Your task to perform on an android device: remove spam from my inbox in the gmail app Image 0: 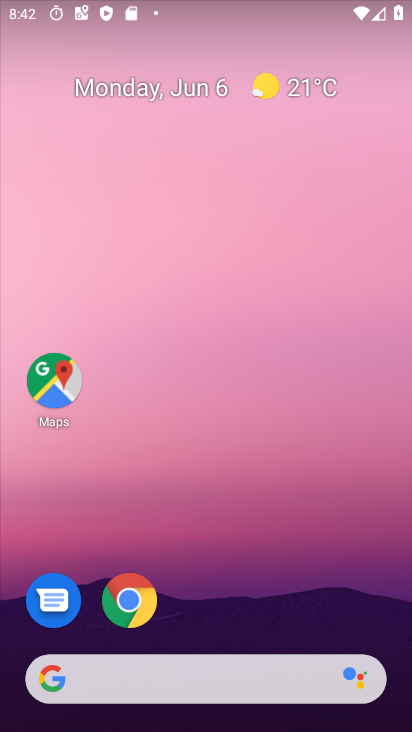
Step 0: drag from (305, 597) to (235, 10)
Your task to perform on an android device: remove spam from my inbox in the gmail app Image 1: 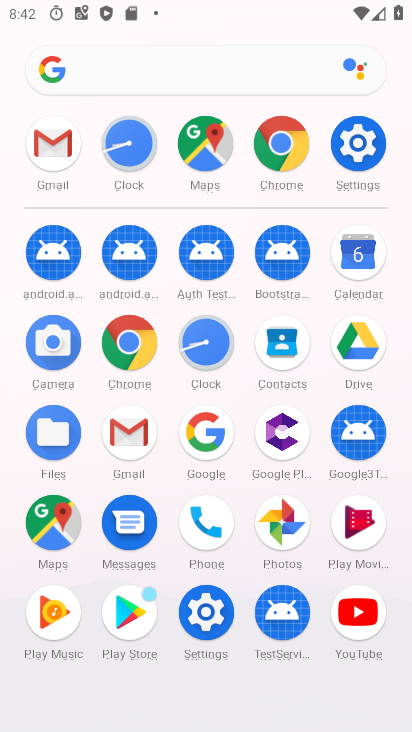
Step 1: drag from (15, 557) to (12, 242)
Your task to perform on an android device: remove spam from my inbox in the gmail app Image 2: 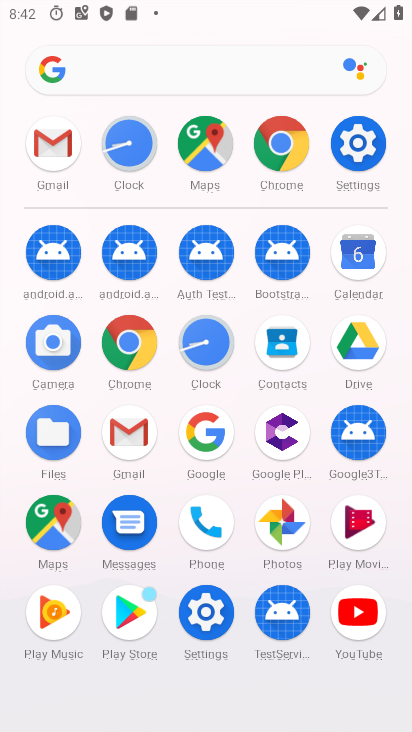
Step 2: click (131, 424)
Your task to perform on an android device: remove spam from my inbox in the gmail app Image 3: 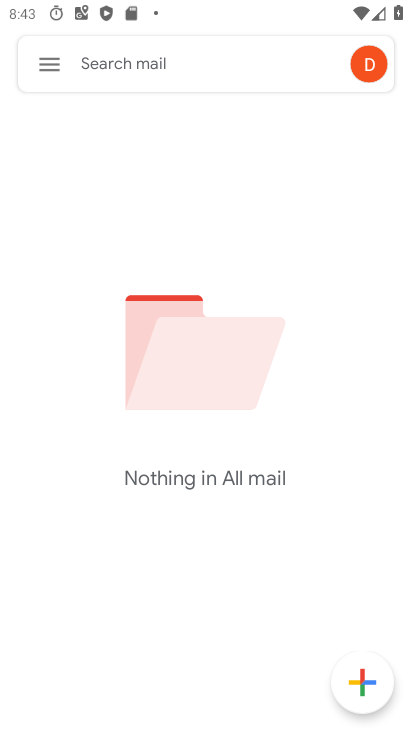
Step 3: click (57, 65)
Your task to perform on an android device: remove spam from my inbox in the gmail app Image 4: 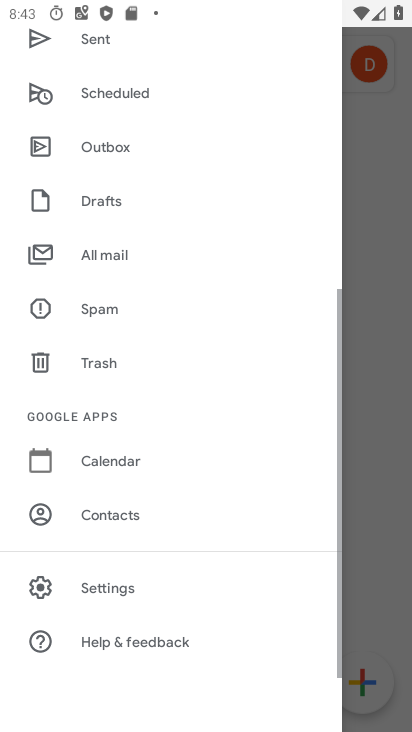
Step 4: drag from (196, 542) to (220, 124)
Your task to perform on an android device: remove spam from my inbox in the gmail app Image 5: 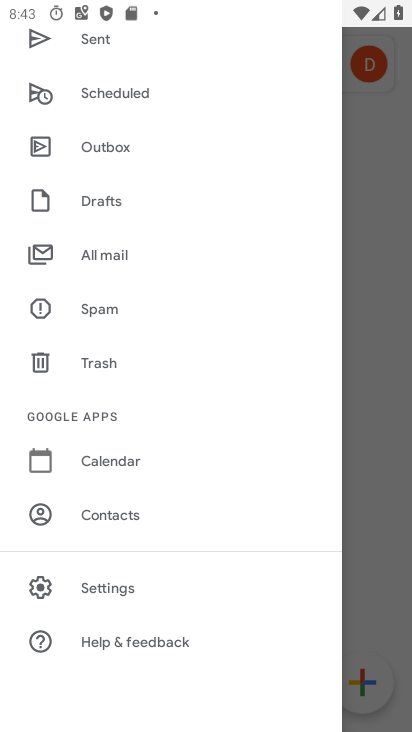
Step 5: click (115, 295)
Your task to perform on an android device: remove spam from my inbox in the gmail app Image 6: 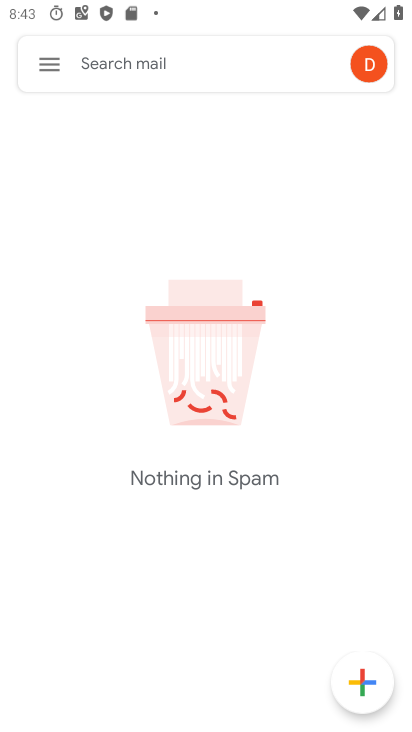
Step 6: task complete